Your task to perform on an android device: check out phone information Image 0: 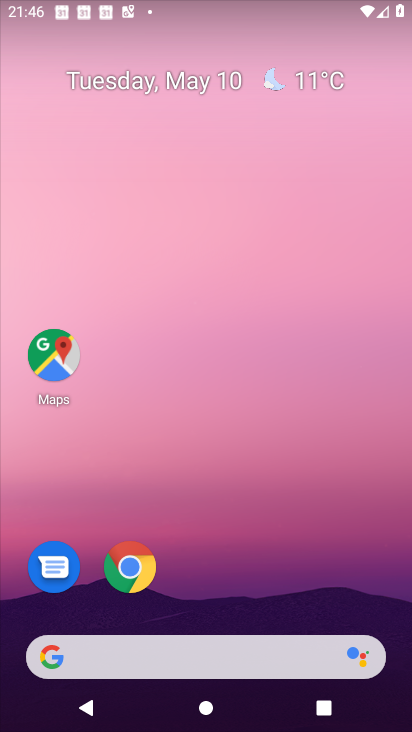
Step 0: drag from (158, 633) to (168, 261)
Your task to perform on an android device: check out phone information Image 1: 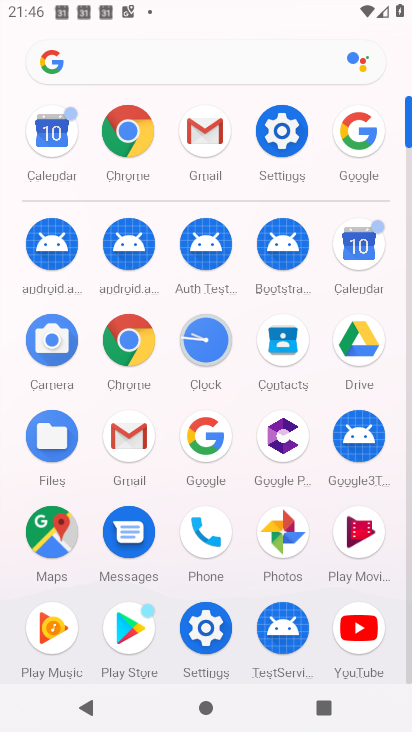
Step 1: click (215, 530)
Your task to perform on an android device: check out phone information Image 2: 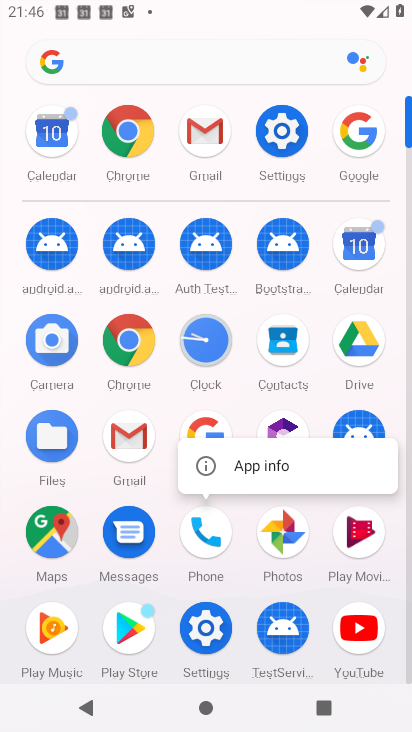
Step 2: click (236, 456)
Your task to perform on an android device: check out phone information Image 3: 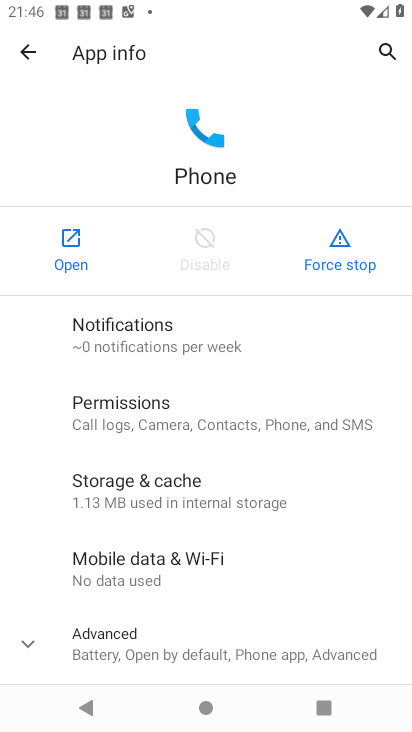
Step 3: click (182, 639)
Your task to perform on an android device: check out phone information Image 4: 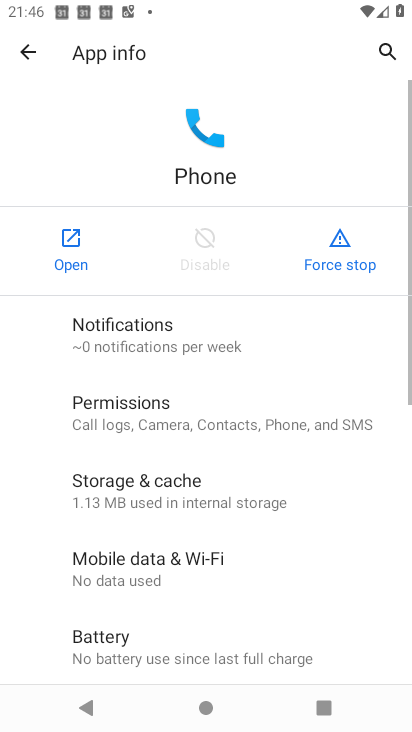
Step 4: task complete